Your task to perform on an android device: Go to Google maps Image 0: 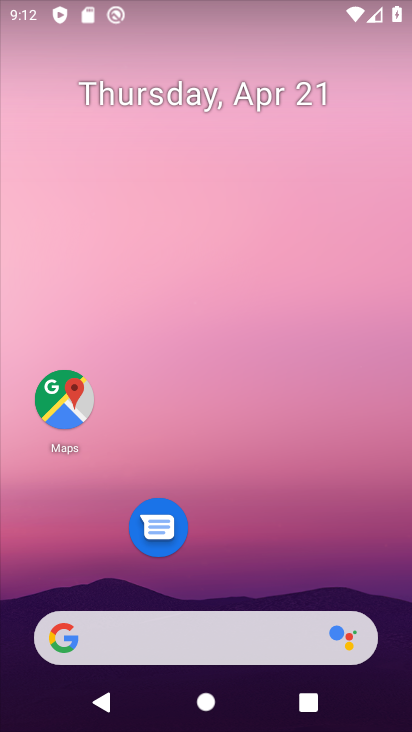
Step 0: click (54, 417)
Your task to perform on an android device: Go to Google maps Image 1: 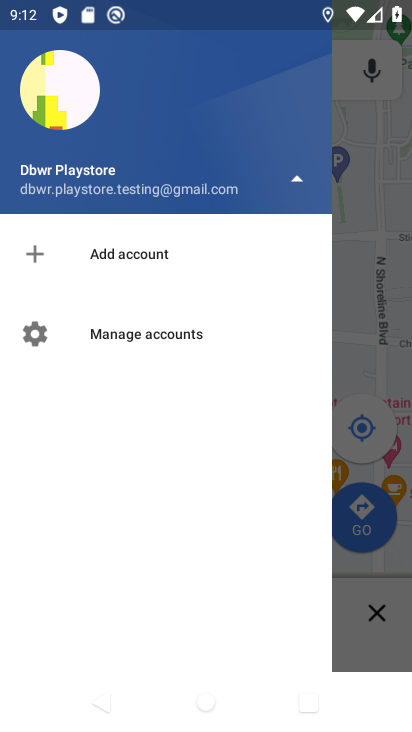
Step 1: click (401, 218)
Your task to perform on an android device: Go to Google maps Image 2: 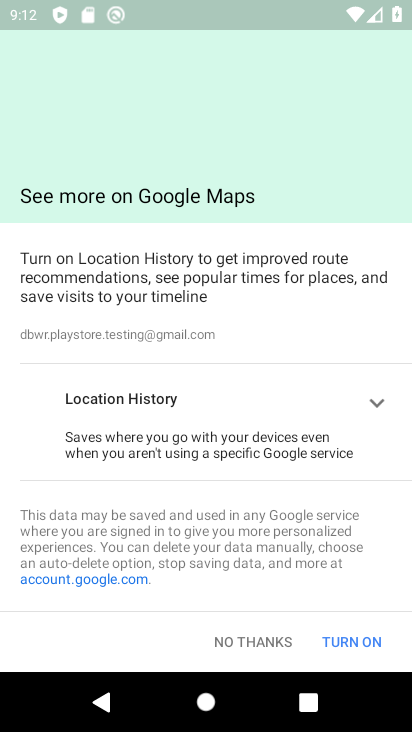
Step 2: click (360, 229)
Your task to perform on an android device: Go to Google maps Image 3: 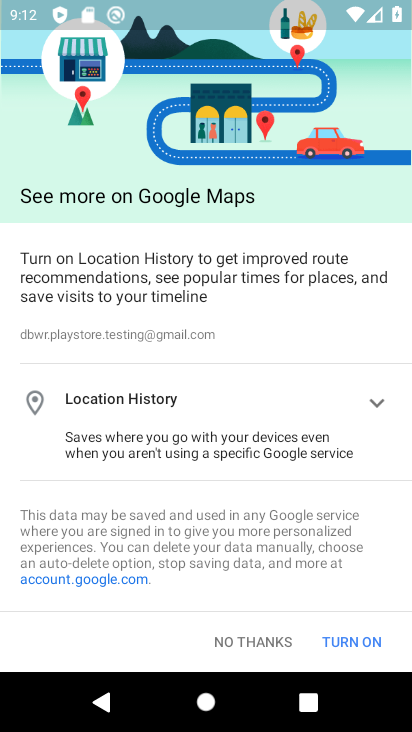
Step 3: click (343, 633)
Your task to perform on an android device: Go to Google maps Image 4: 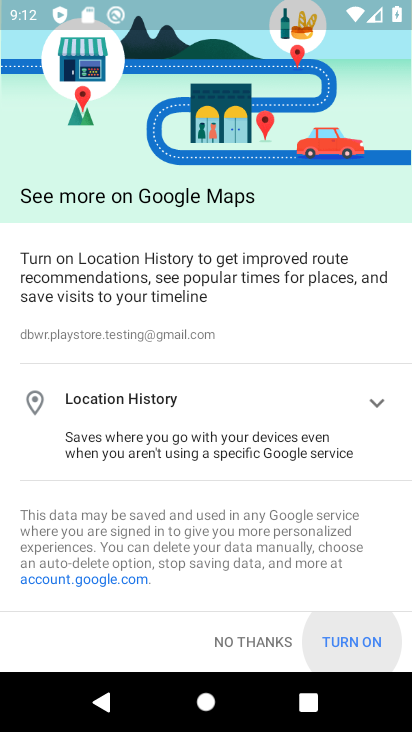
Step 4: click (338, 646)
Your task to perform on an android device: Go to Google maps Image 5: 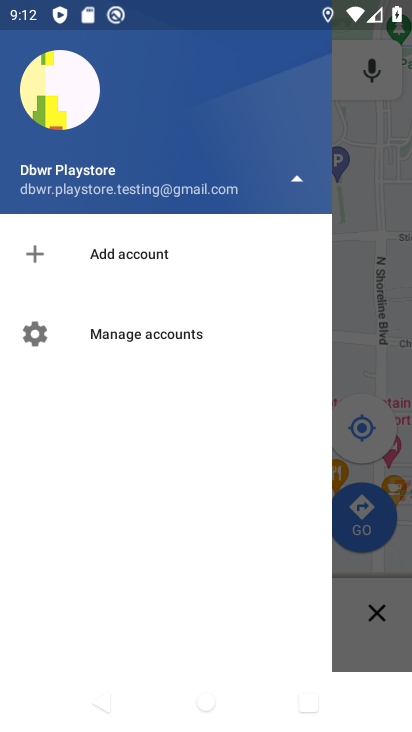
Step 5: click (338, 646)
Your task to perform on an android device: Go to Google maps Image 6: 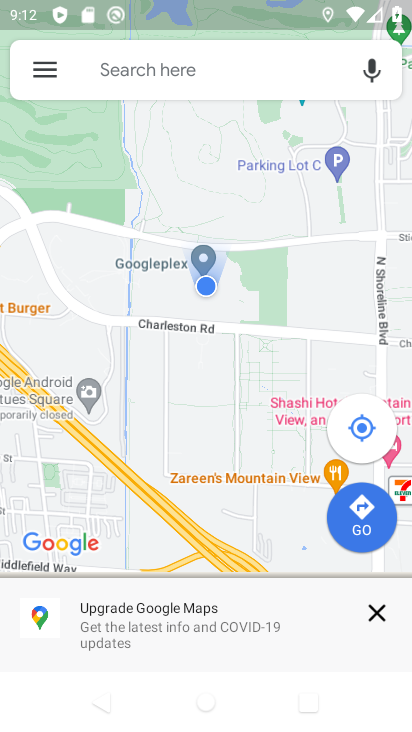
Step 6: click (373, 620)
Your task to perform on an android device: Go to Google maps Image 7: 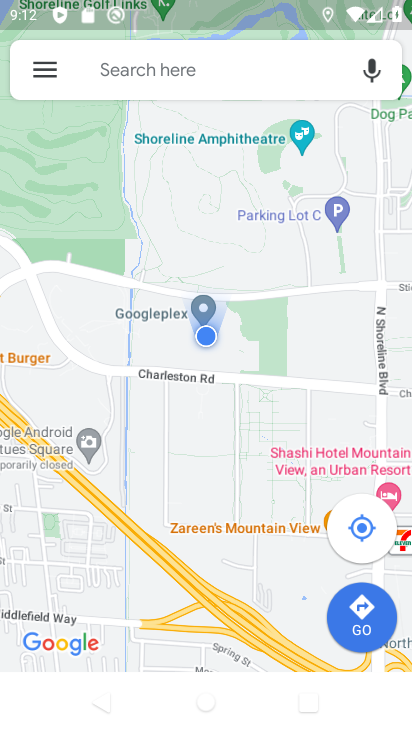
Step 7: task complete